Your task to perform on an android device: visit the assistant section in the google photos Image 0: 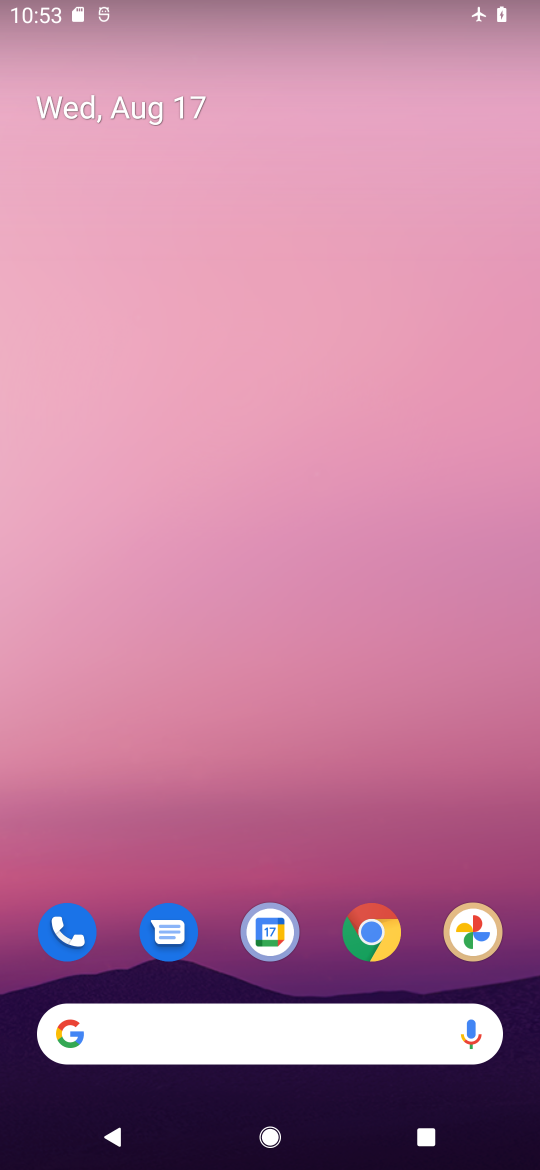
Step 0: drag from (328, 964) to (262, 4)
Your task to perform on an android device: visit the assistant section in the google photos Image 1: 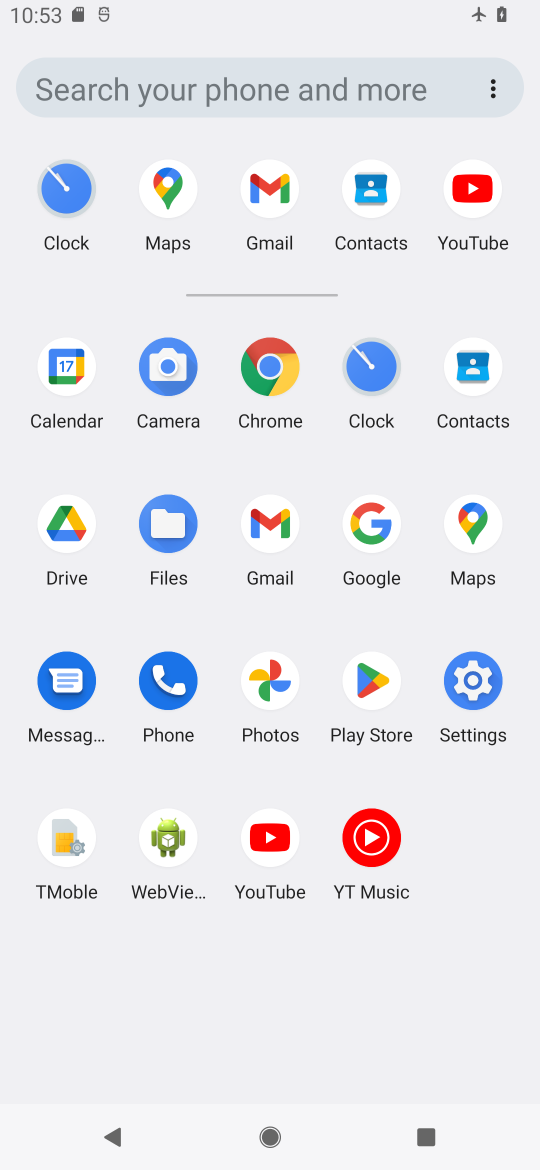
Step 1: click (272, 686)
Your task to perform on an android device: visit the assistant section in the google photos Image 2: 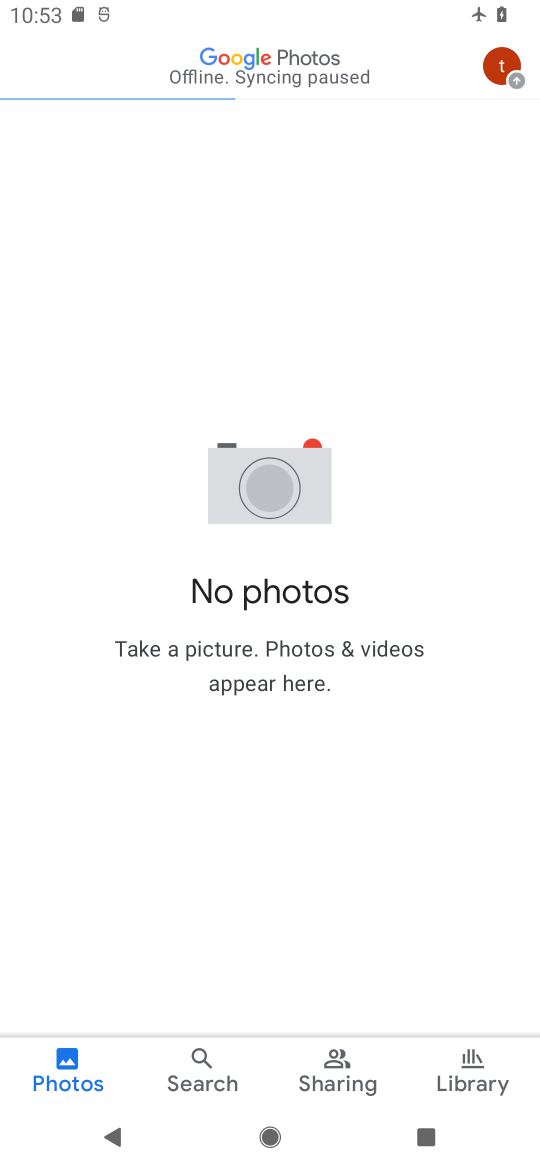
Step 2: click (203, 1061)
Your task to perform on an android device: visit the assistant section in the google photos Image 3: 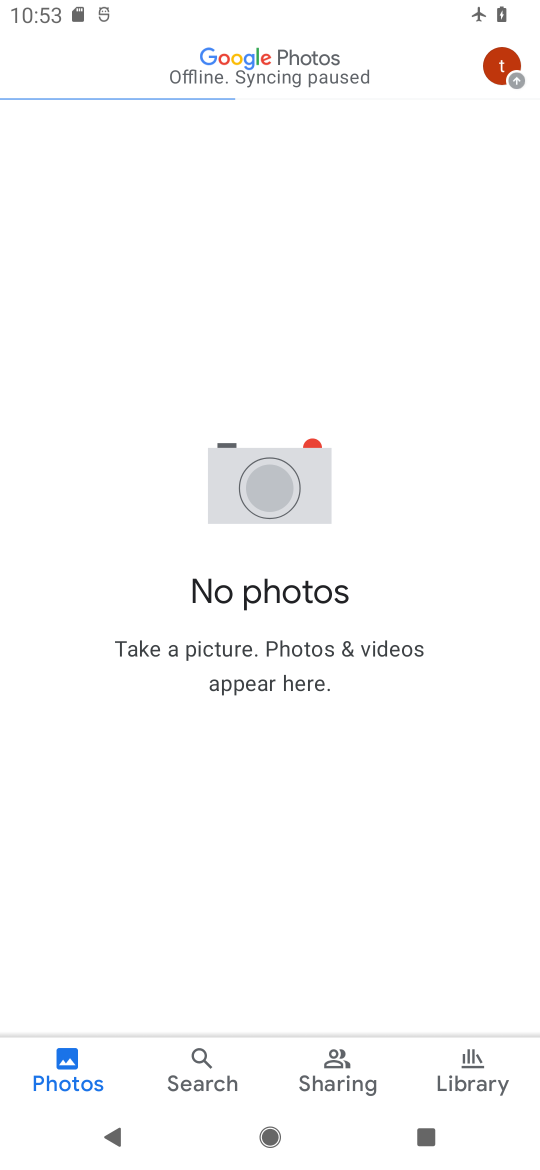
Step 3: click (201, 1056)
Your task to perform on an android device: visit the assistant section in the google photos Image 4: 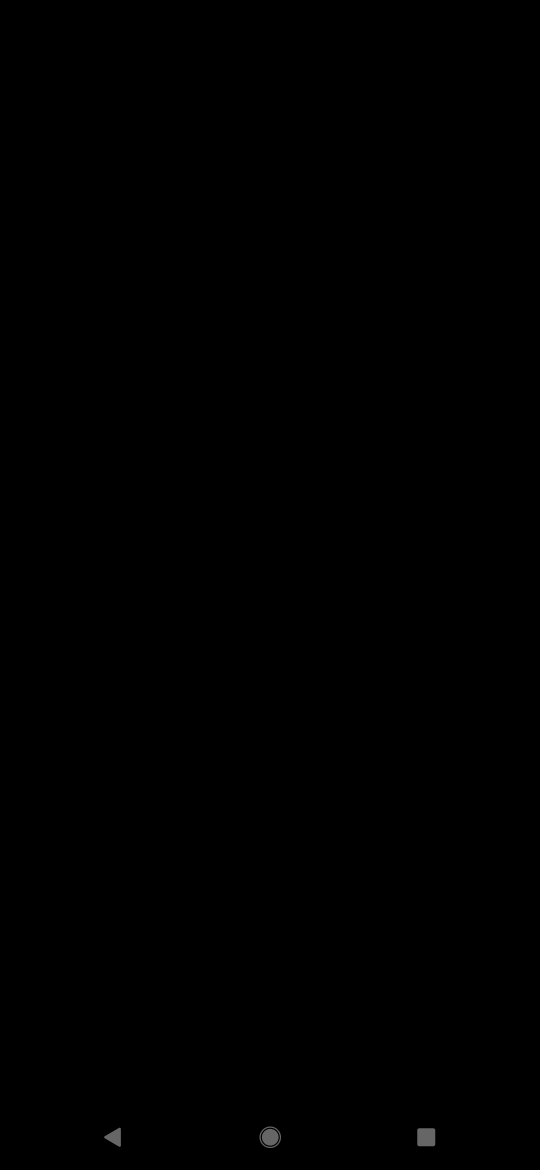
Step 4: task complete